Your task to perform on an android device: choose inbox layout in the gmail app Image 0: 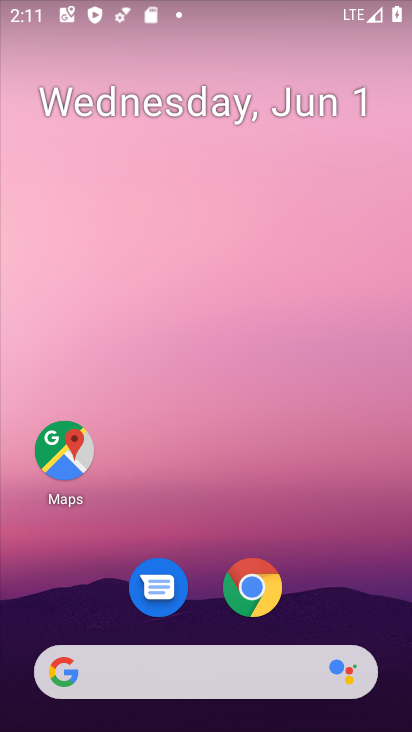
Step 0: drag from (164, 682) to (130, 170)
Your task to perform on an android device: choose inbox layout in the gmail app Image 1: 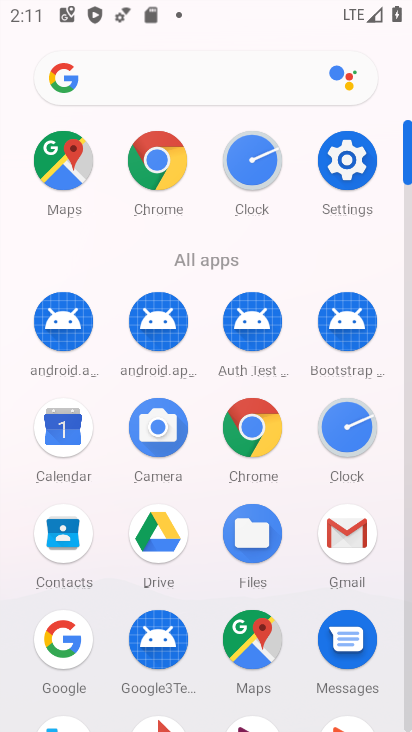
Step 1: click (335, 531)
Your task to perform on an android device: choose inbox layout in the gmail app Image 2: 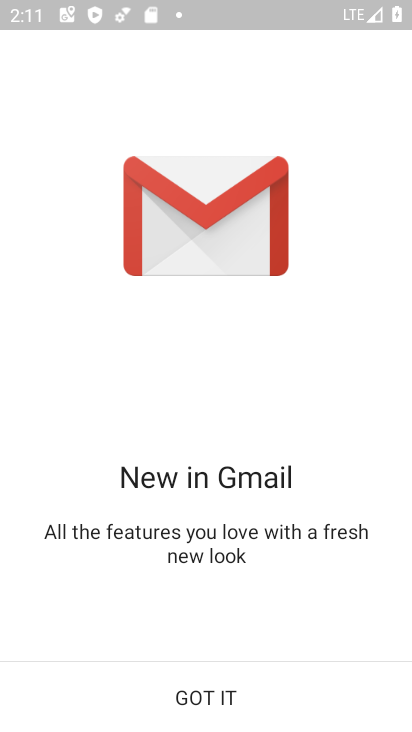
Step 2: click (204, 691)
Your task to perform on an android device: choose inbox layout in the gmail app Image 3: 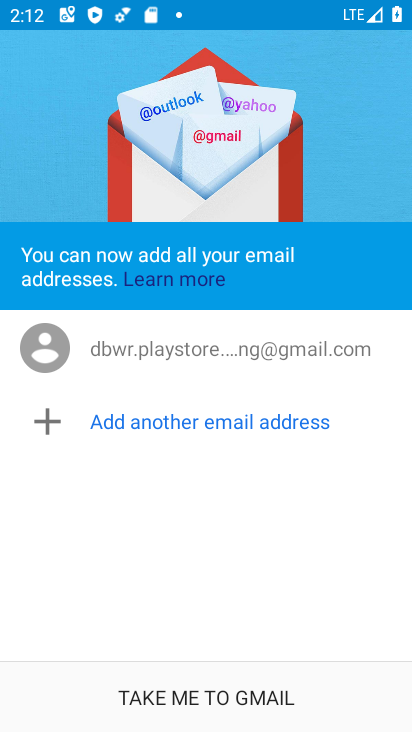
Step 3: click (190, 696)
Your task to perform on an android device: choose inbox layout in the gmail app Image 4: 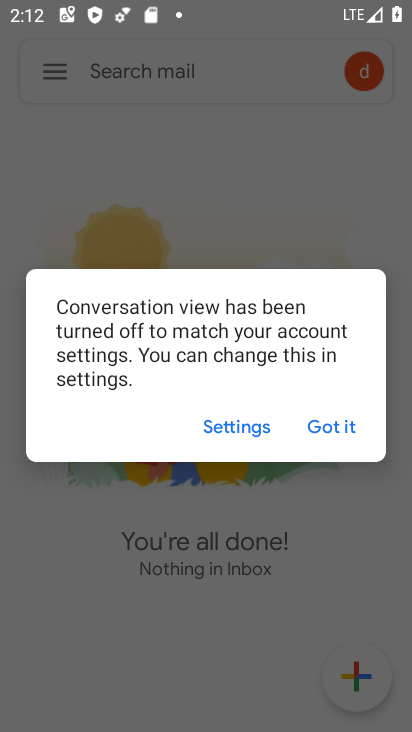
Step 4: click (352, 429)
Your task to perform on an android device: choose inbox layout in the gmail app Image 5: 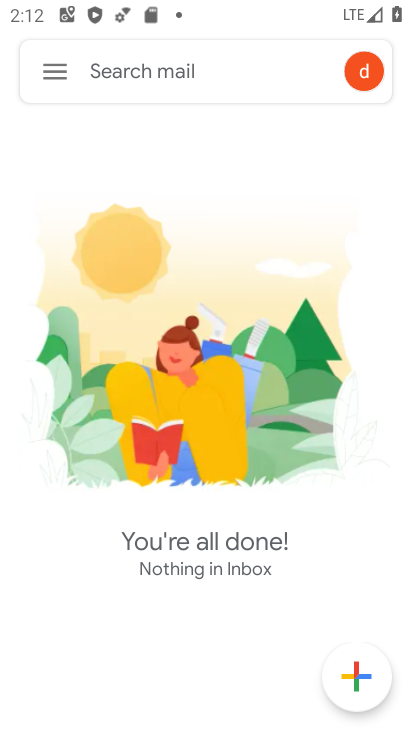
Step 5: click (62, 72)
Your task to perform on an android device: choose inbox layout in the gmail app Image 6: 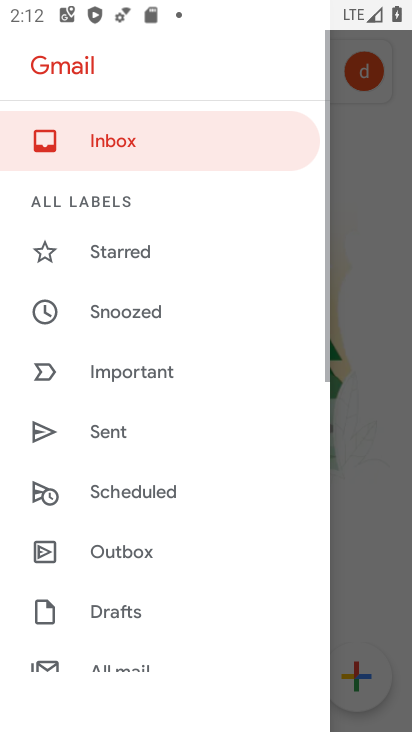
Step 6: drag from (180, 555) to (121, 62)
Your task to perform on an android device: choose inbox layout in the gmail app Image 7: 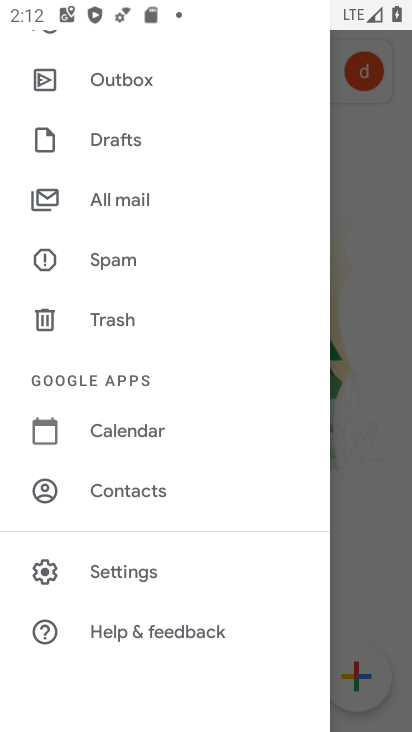
Step 7: click (111, 573)
Your task to perform on an android device: choose inbox layout in the gmail app Image 8: 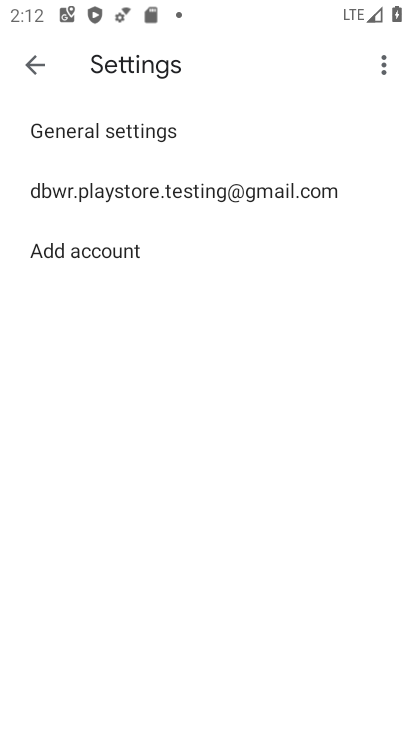
Step 8: click (201, 182)
Your task to perform on an android device: choose inbox layout in the gmail app Image 9: 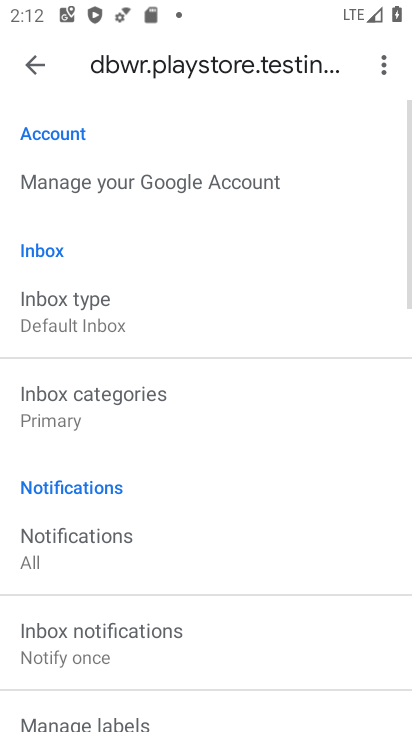
Step 9: click (142, 317)
Your task to perform on an android device: choose inbox layout in the gmail app Image 10: 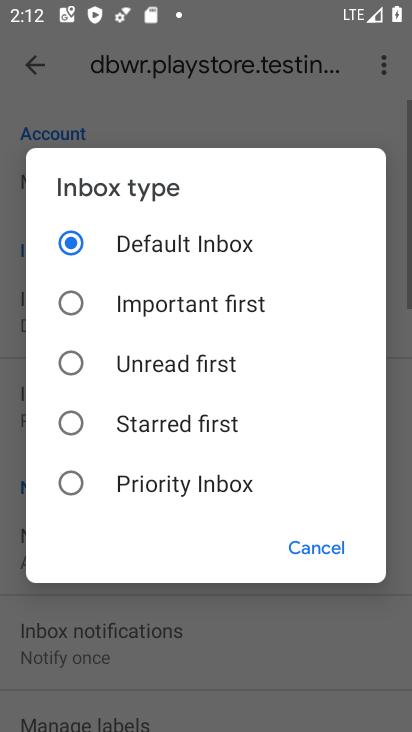
Step 10: click (160, 488)
Your task to perform on an android device: choose inbox layout in the gmail app Image 11: 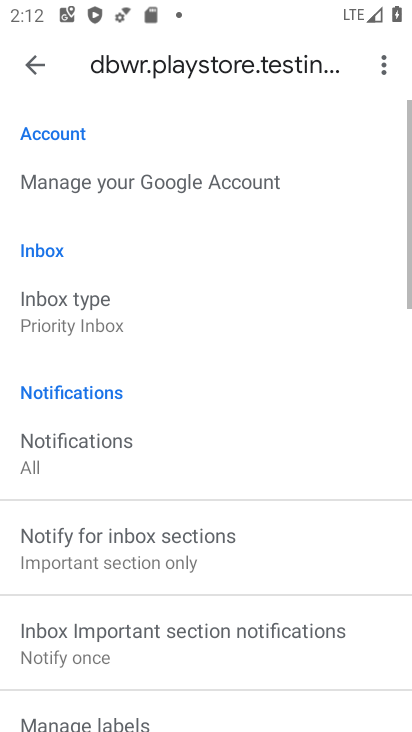
Step 11: task complete